Your task to perform on an android device: check storage Image 0: 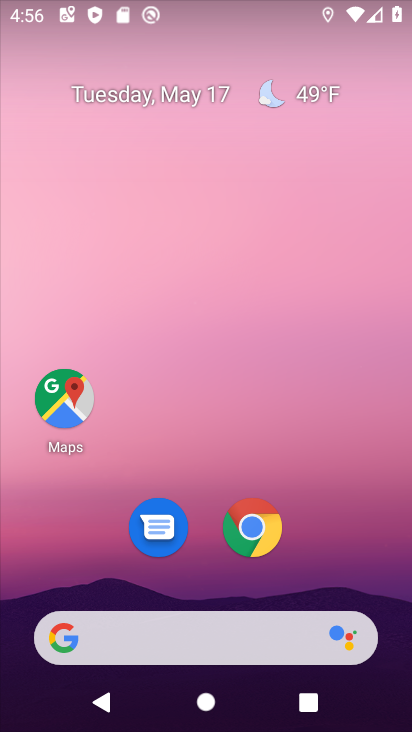
Step 0: drag from (312, 552) to (246, 1)
Your task to perform on an android device: check storage Image 1: 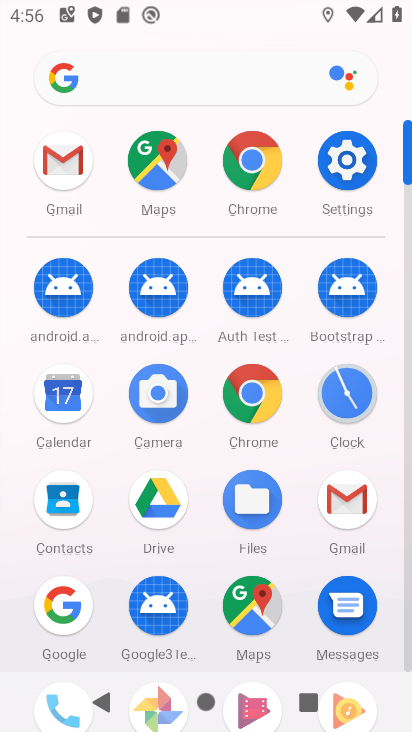
Step 1: click (344, 157)
Your task to perform on an android device: check storage Image 2: 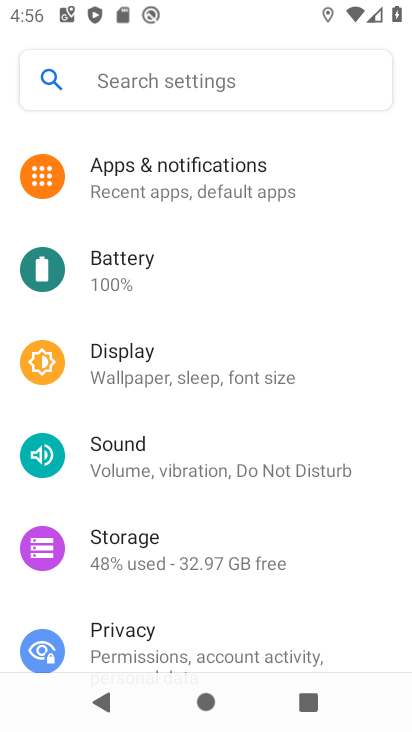
Step 2: drag from (213, 538) to (268, 205)
Your task to perform on an android device: check storage Image 3: 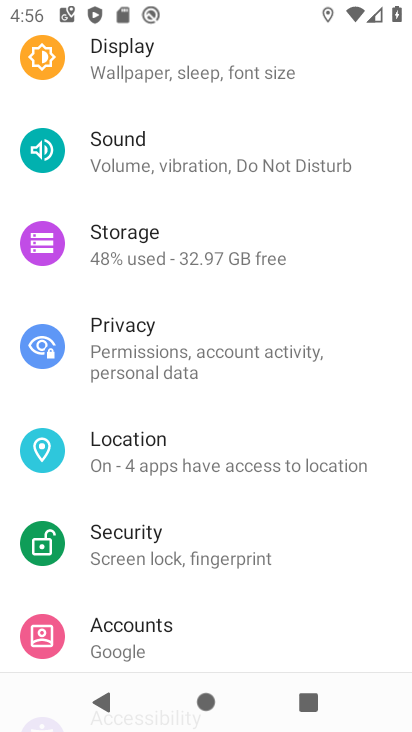
Step 3: click (92, 234)
Your task to perform on an android device: check storage Image 4: 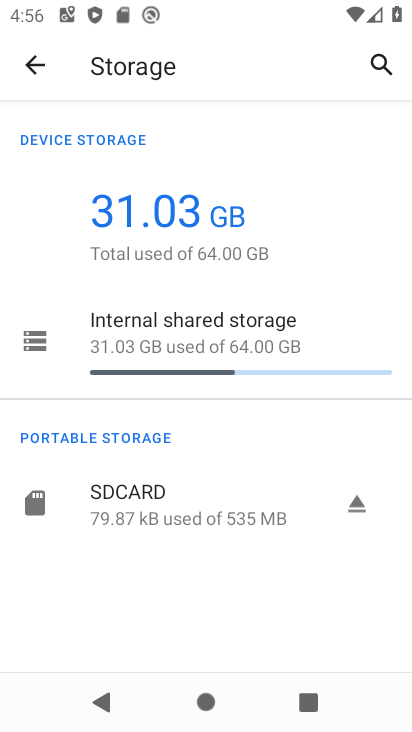
Step 4: task complete